Your task to perform on an android device: turn on translation in the chrome app Image 0: 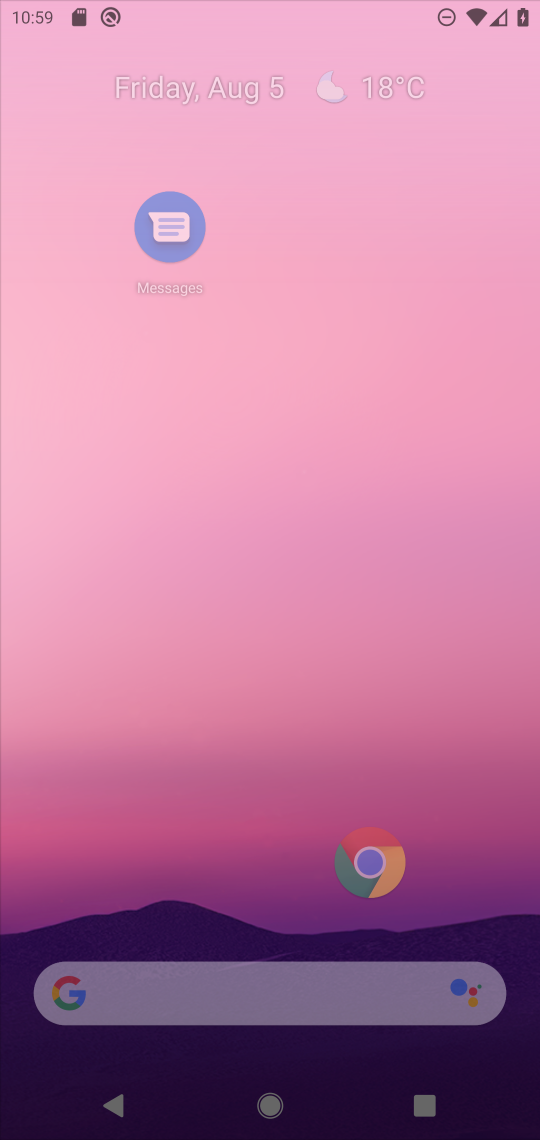
Step 0: press home button
Your task to perform on an android device: turn on translation in the chrome app Image 1: 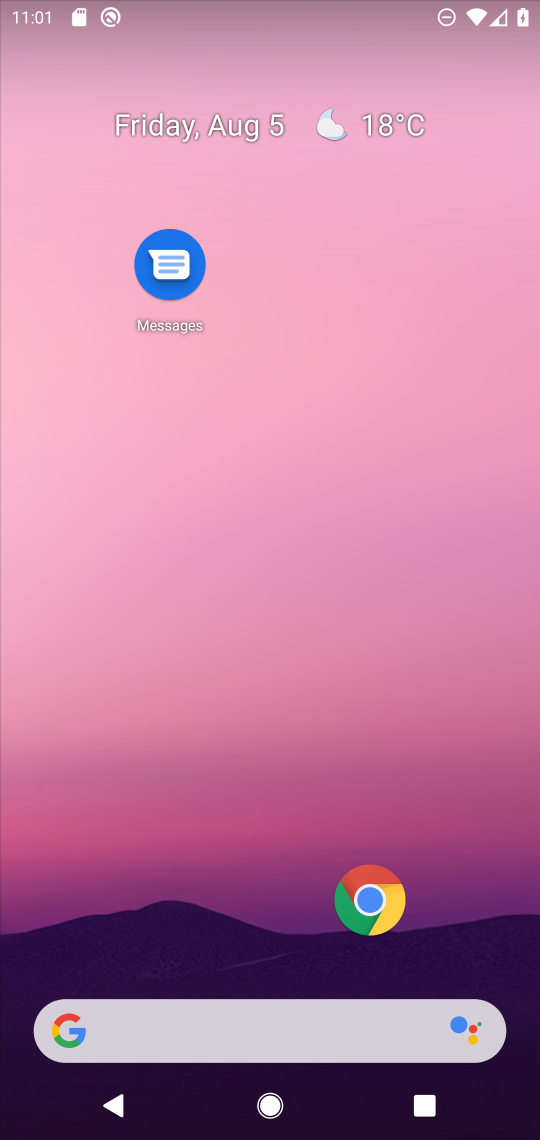
Step 1: drag from (106, 912) to (376, 207)
Your task to perform on an android device: turn on translation in the chrome app Image 2: 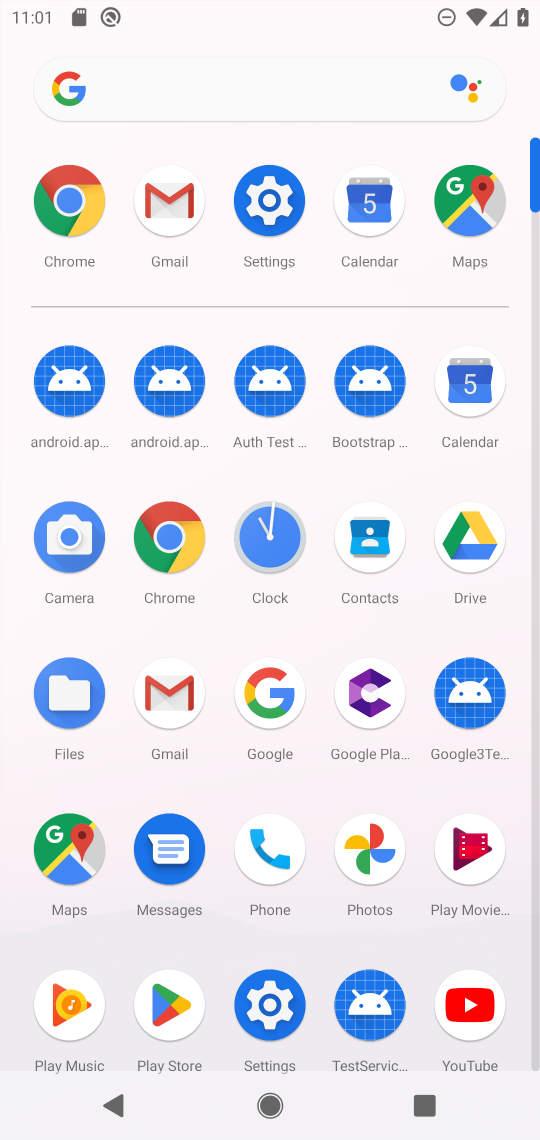
Step 2: click (55, 199)
Your task to perform on an android device: turn on translation in the chrome app Image 3: 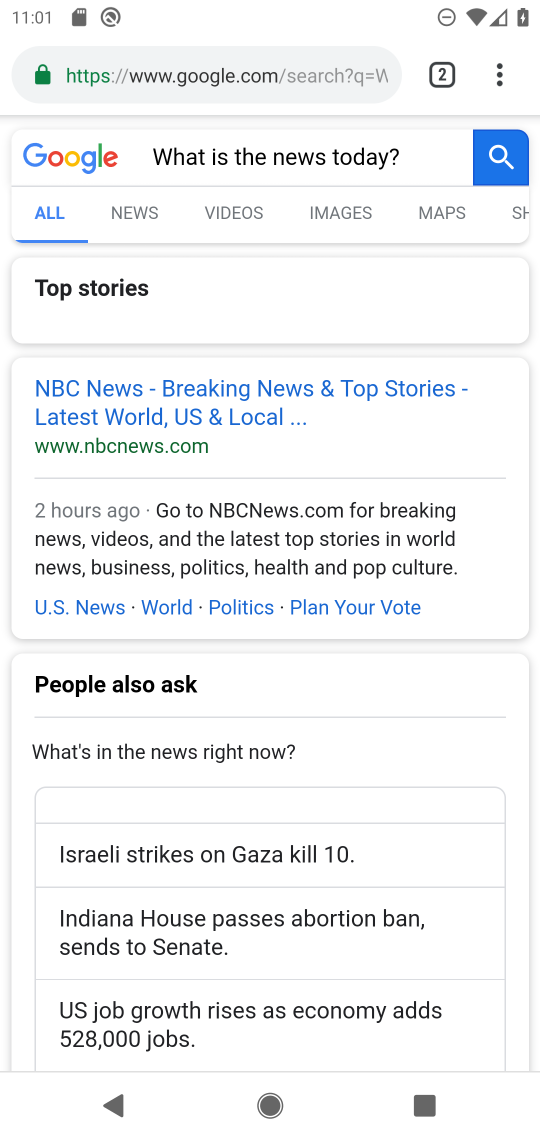
Step 3: drag from (515, 76) to (244, 818)
Your task to perform on an android device: turn on translation in the chrome app Image 4: 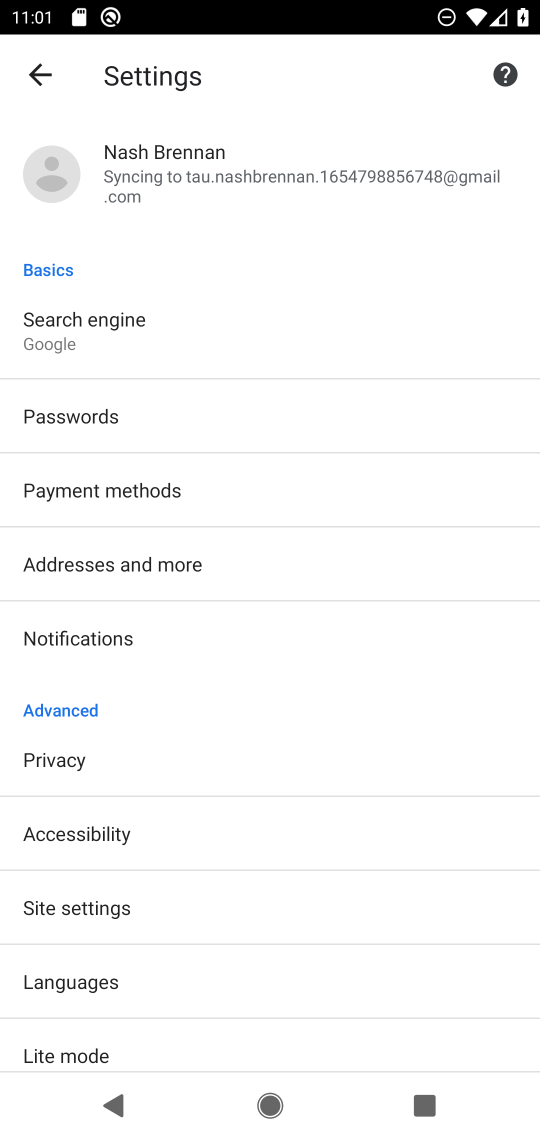
Step 4: click (16, 967)
Your task to perform on an android device: turn on translation in the chrome app Image 5: 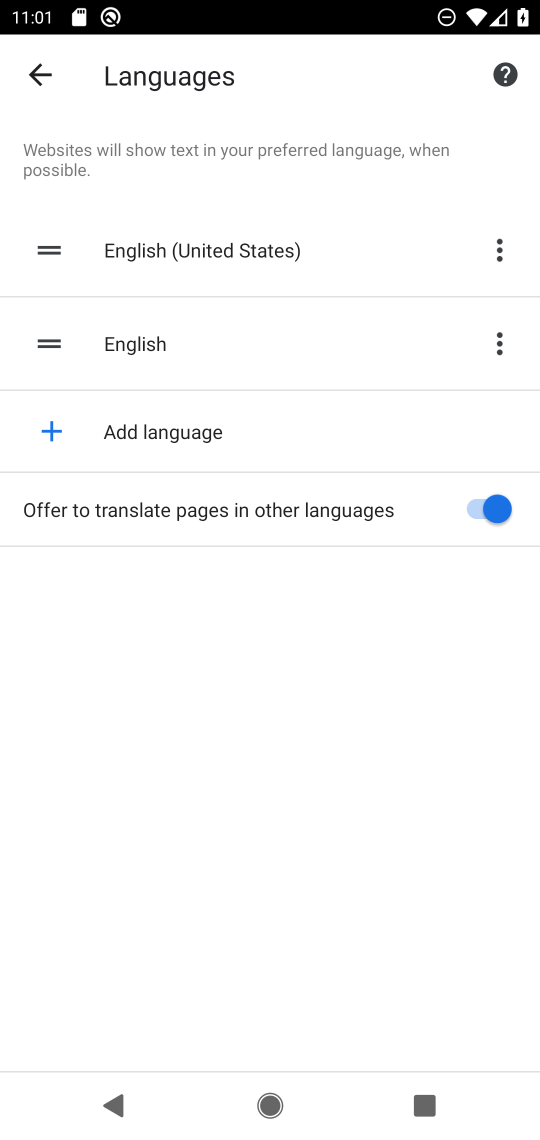
Step 5: task complete